Your task to perform on an android device: Show me popular videos on Youtube Image 0: 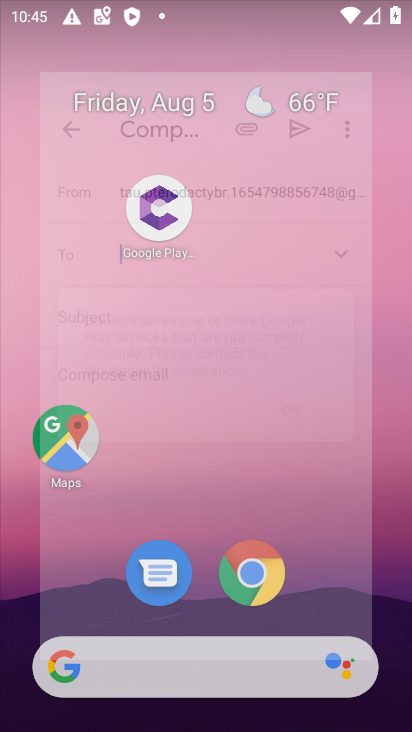
Step 0: press home button
Your task to perform on an android device: Show me popular videos on Youtube Image 1: 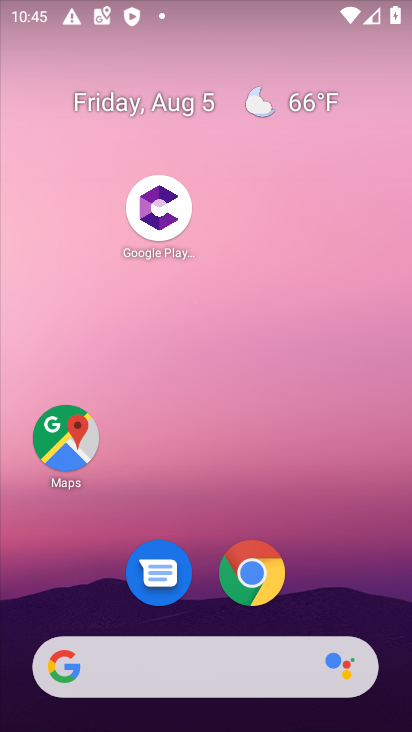
Step 1: drag from (207, 615) to (238, 116)
Your task to perform on an android device: Show me popular videos on Youtube Image 2: 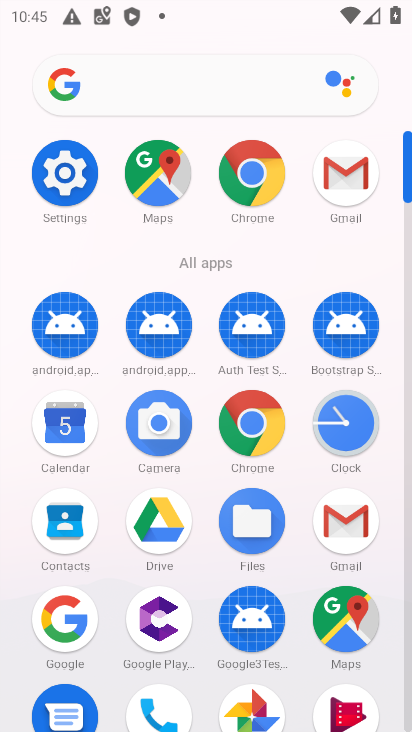
Step 2: drag from (207, 681) to (238, 164)
Your task to perform on an android device: Show me popular videos on Youtube Image 3: 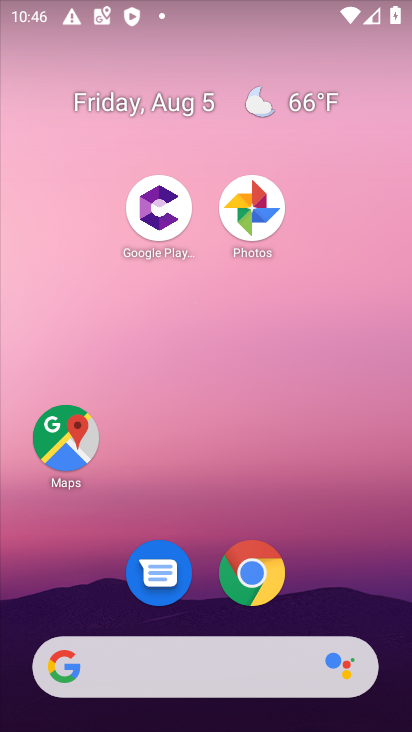
Step 3: drag from (334, 598) to (359, 50)
Your task to perform on an android device: Show me popular videos on Youtube Image 4: 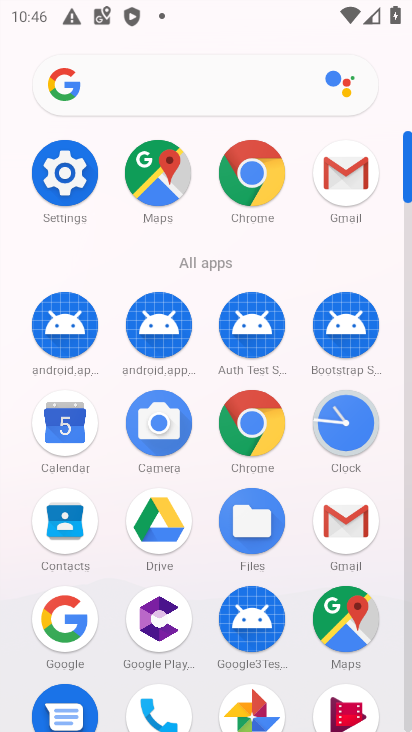
Step 4: drag from (297, 584) to (305, 90)
Your task to perform on an android device: Show me popular videos on Youtube Image 5: 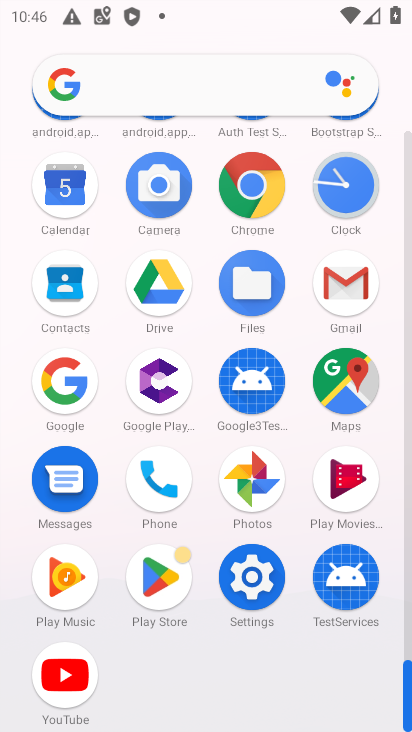
Step 5: click (59, 665)
Your task to perform on an android device: Show me popular videos on Youtube Image 6: 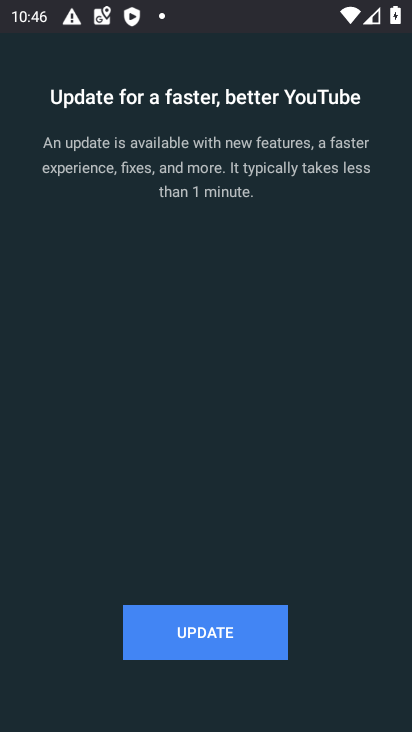
Step 6: click (206, 629)
Your task to perform on an android device: Show me popular videos on Youtube Image 7: 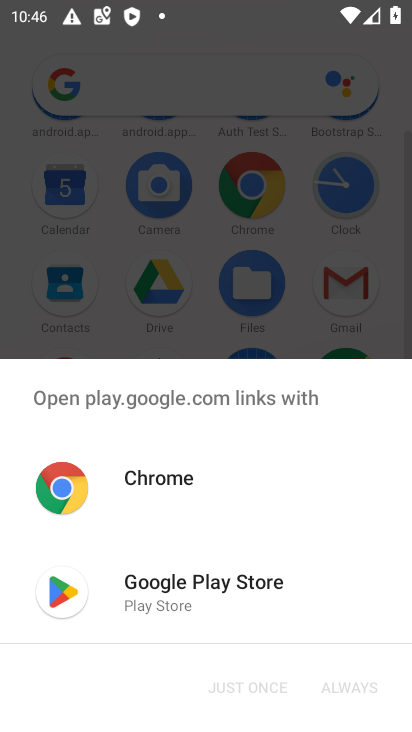
Step 7: click (142, 584)
Your task to perform on an android device: Show me popular videos on Youtube Image 8: 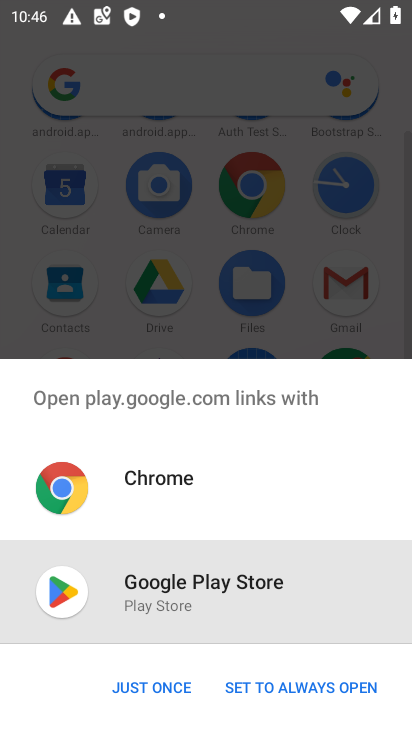
Step 8: click (145, 687)
Your task to perform on an android device: Show me popular videos on Youtube Image 9: 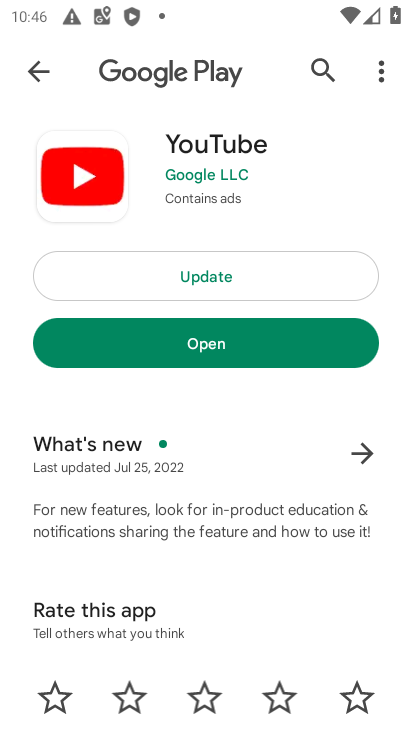
Step 9: click (209, 274)
Your task to perform on an android device: Show me popular videos on Youtube Image 10: 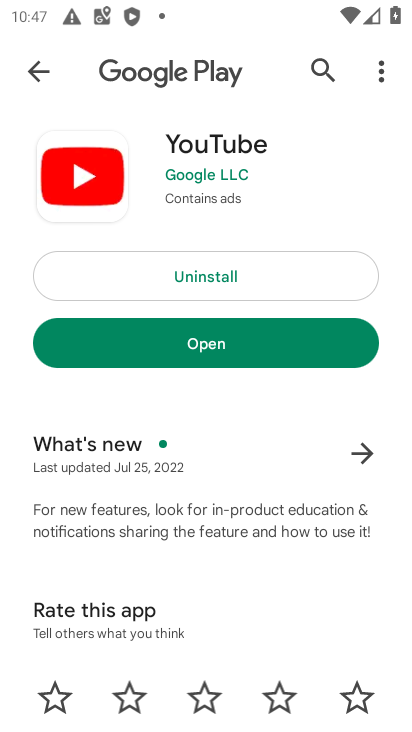
Step 10: click (204, 354)
Your task to perform on an android device: Show me popular videos on Youtube Image 11: 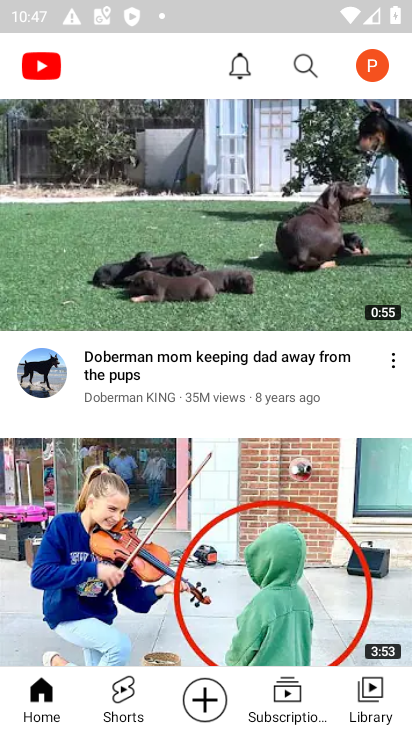
Step 11: drag from (151, 172) to (187, 621)
Your task to perform on an android device: Show me popular videos on Youtube Image 12: 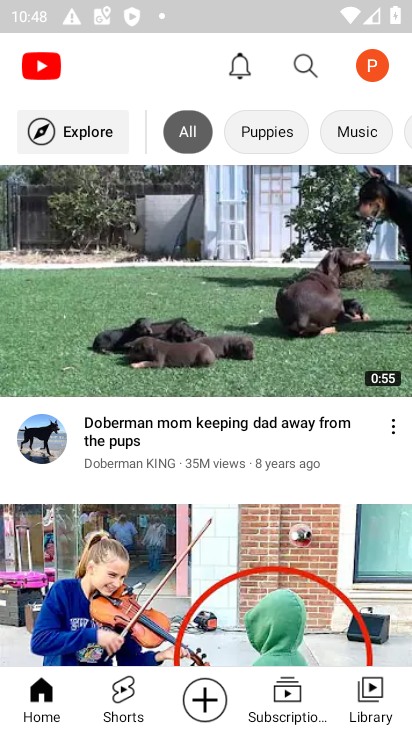
Step 12: click (76, 132)
Your task to perform on an android device: Show me popular videos on Youtube Image 13: 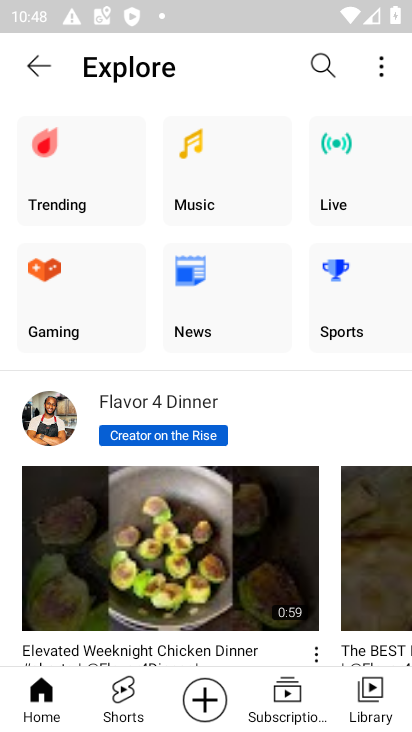
Step 13: click (61, 175)
Your task to perform on an android device: Show me popular videos on Youtube Image 14: 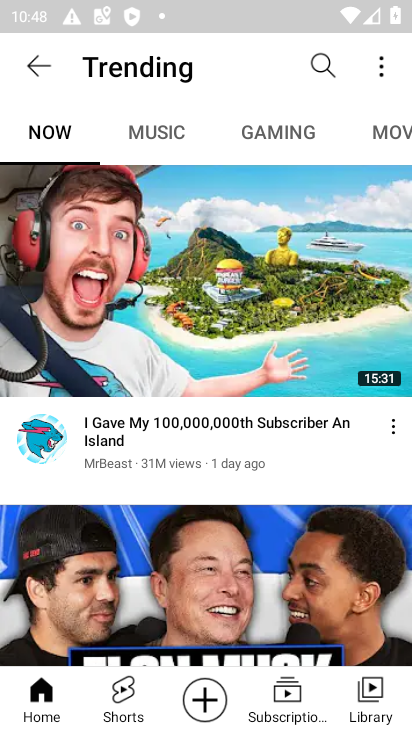
Step 14: task complete